Your task to perform on an android device: Toggle the flashlight Image 0: 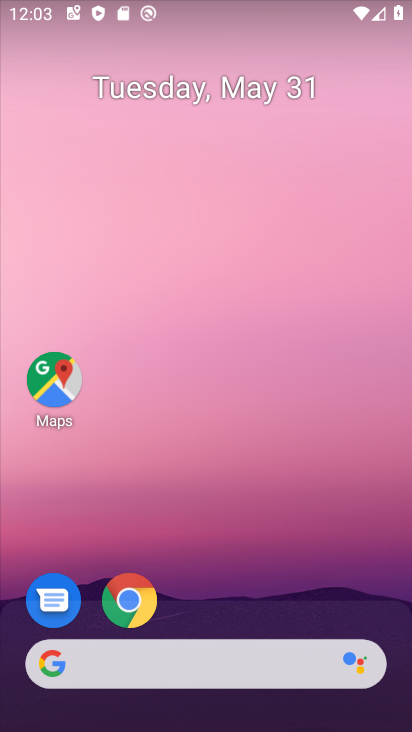
Step 0: drag from (299, 2) to (290, 336)
Your task to perform on an android device: Toggle the flashlight Image 1: 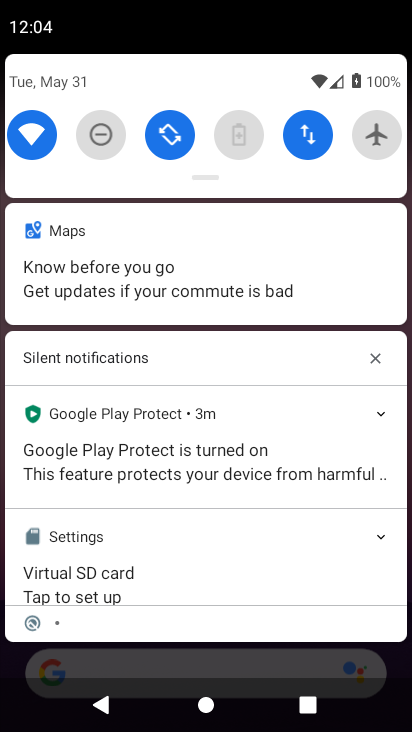
Step 1: task complete